Your task to perform on an android device: check google app version Image 0: 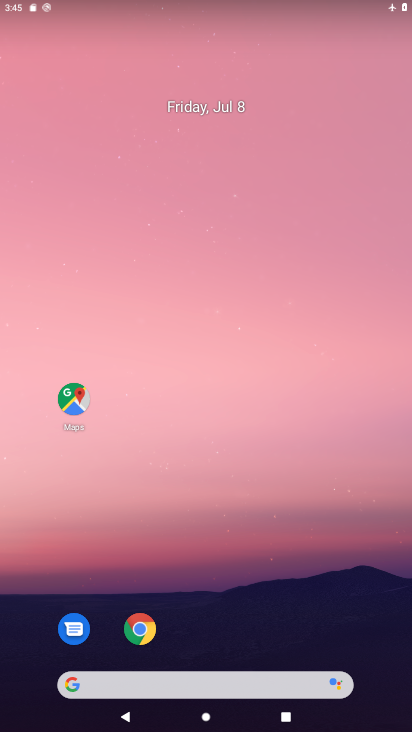
Step 0: drag from (261, 640) to (283, 136)
Your task to perform on an android device: check google app version Image 1: 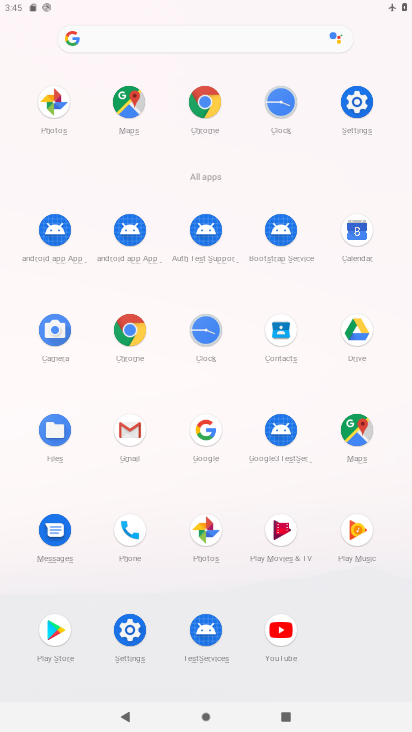
Step 1: click (211, 421)
Your task to perform on an android device: check google app version Image 2: 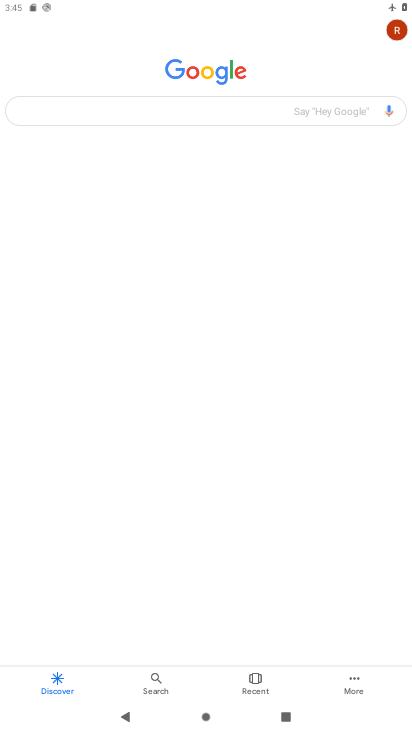
Step 2: click (396, 35)
Your task to perform on an android device: check google app version Image 3: 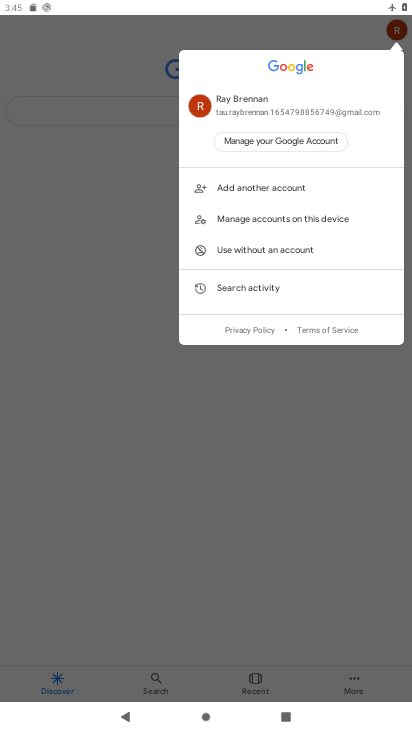
Step 3: click (293, 106)
Your task to perform on an android device: check google app version Image 4: 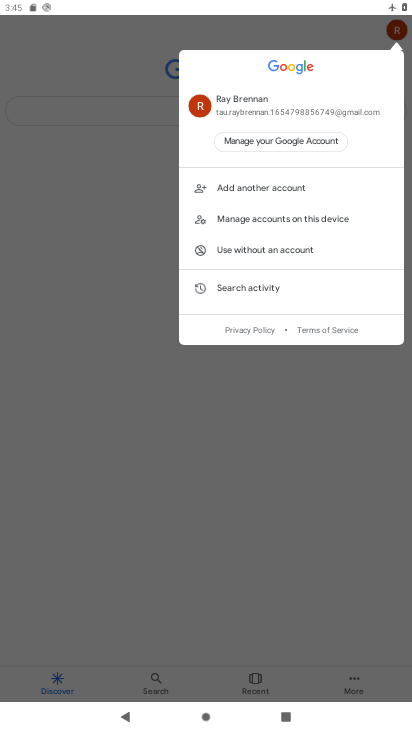
Step 4: click (208, 89)
Your task to perform on an android device: check google app version Image 5: 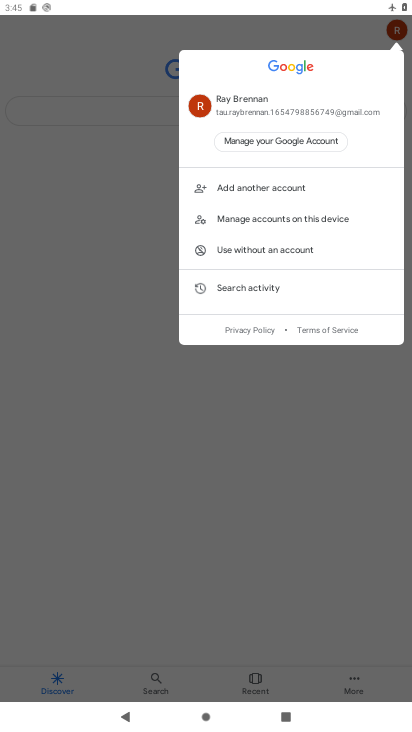
Step 5: click (289, 525)
Your task to perform on an android device: check google app version Image 6: 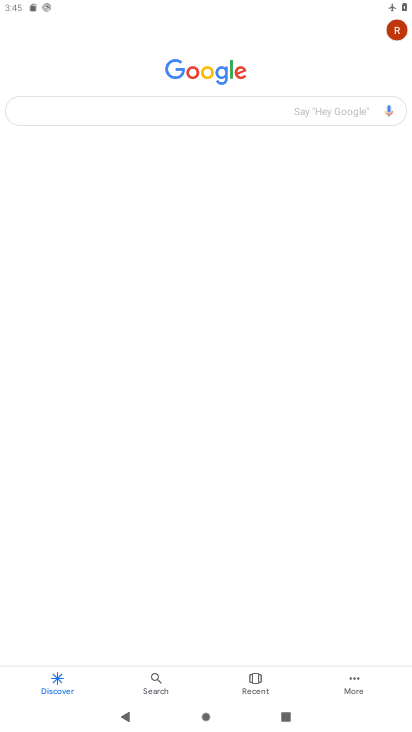
Step 6: click (357, 675)
Your task to perform on an android device: check google app version Image 7: 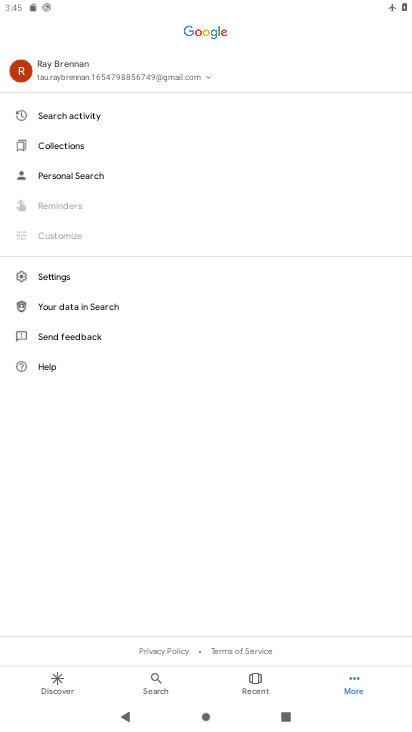
Step 7: click (56, 283)
Your task to perform on an android device: check google app version Image 8: 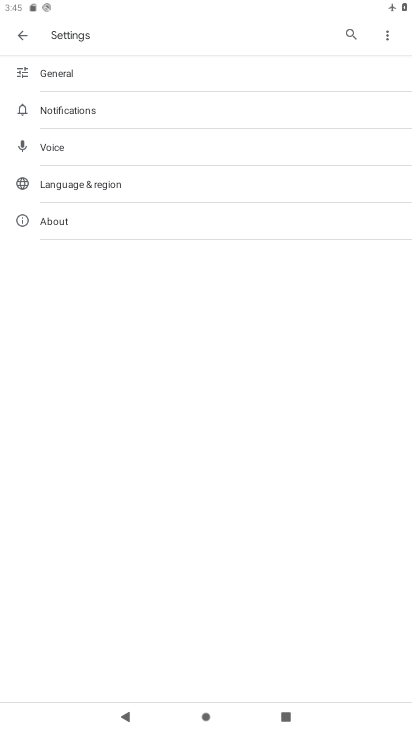
Step 8: click (108, 224)
Your task to perform on an android device: check google app version Image 9: 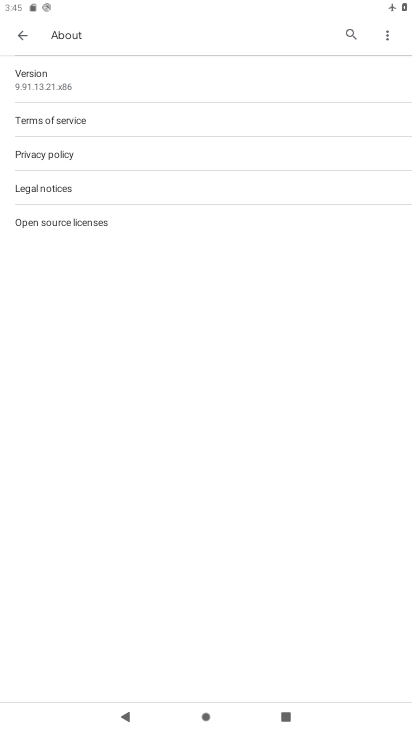
Step 9: click (92, 75)
Your task to perform on an android device: check google app version Image 10: 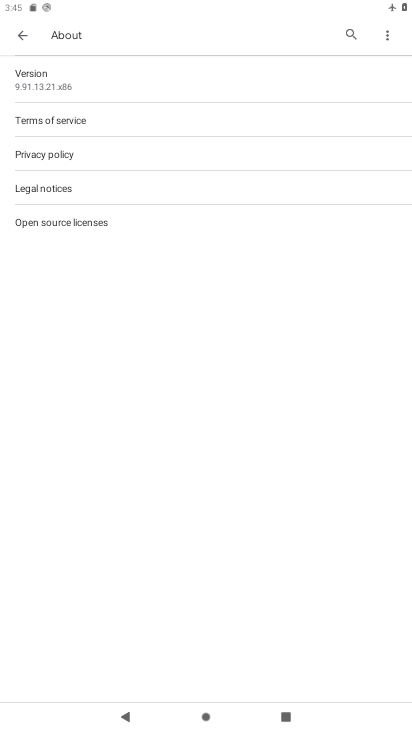
Step 10: task complete